Your task to perform on an android device: open a new tab in the chrome app Image 0: 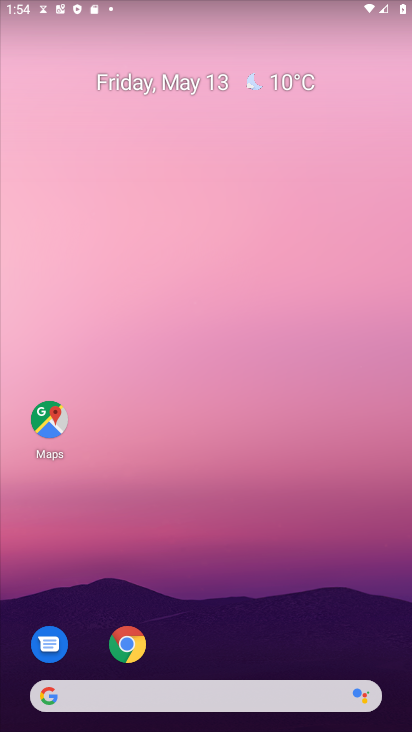
Step 0: click (128, 640)
Your task to perform on an android device: open a new tab in the chrome app Image 1: 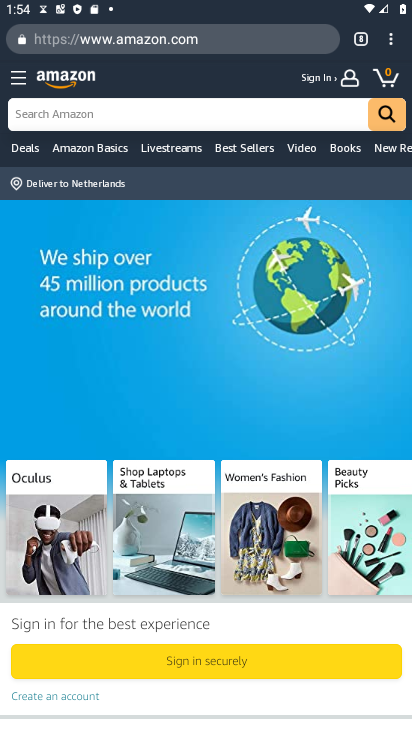
Step 1: click (393, 43)
Your task to perform on an android device: open a new tab in the chrome app Image 2: 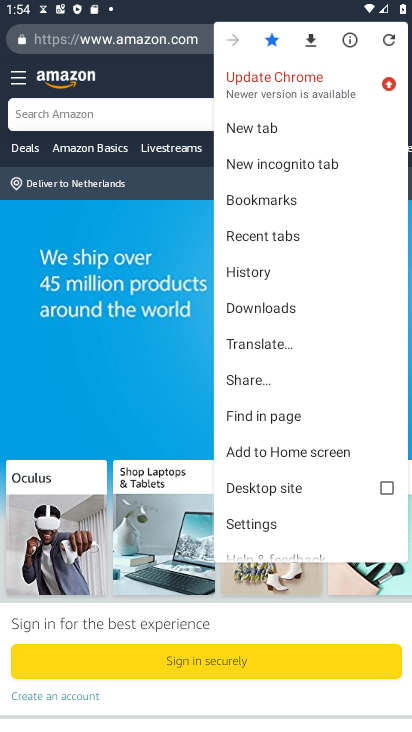
Step 2: click (252, 129)
Your task to perform on an android device: open a new tab in the chrome app Image 3: 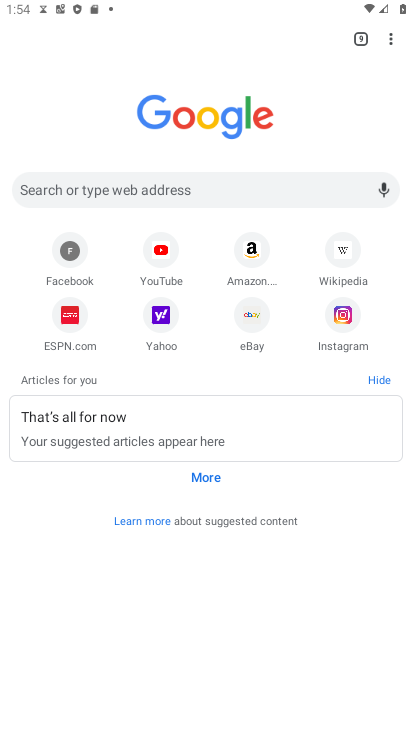
Step 3: task complete